Your task to perform on an android device: turn on airplane mode Image 0: 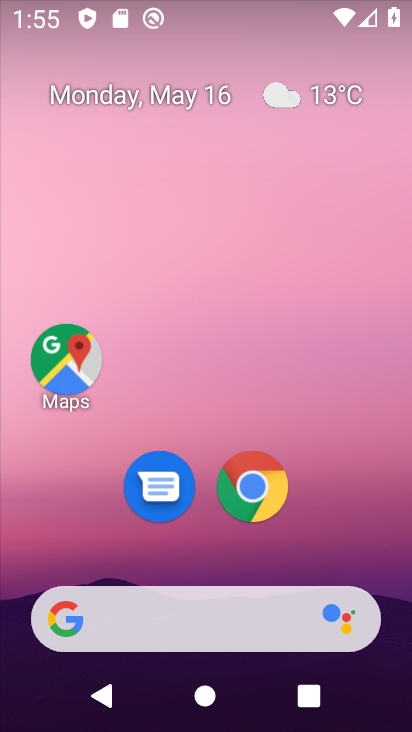
Step 0: drag from (376, 519) to (352, 116)
Your task to perform on an android device: turn on airplane mode Image 1: 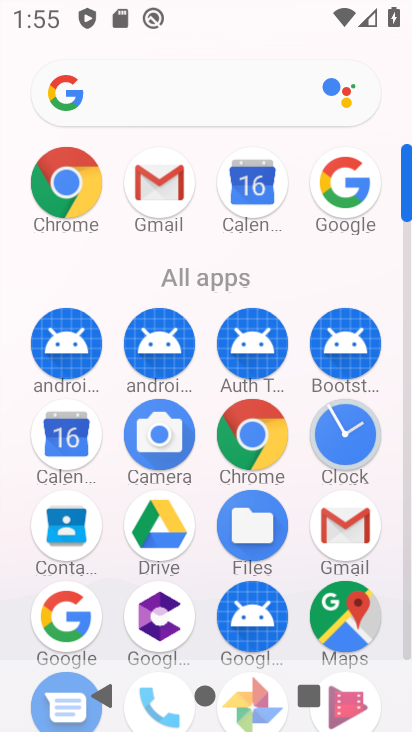
Step 1: drag from (382, 652) to (374, 223)
Your task to perform on an android device: turn on airplane mode Image 2: 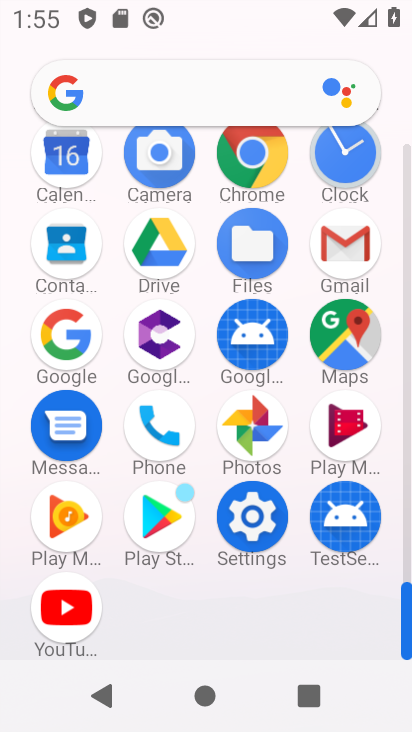
Step 2: click (249, 521)
Your task to perform on an android device: turn on airplane mode Image 3: 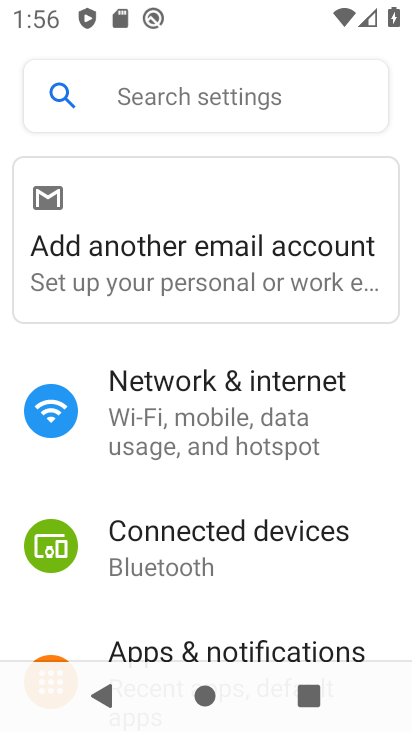
Step 3: click (197, 425)
Your task to perform on an android device: turn on airplane mode Image 4: 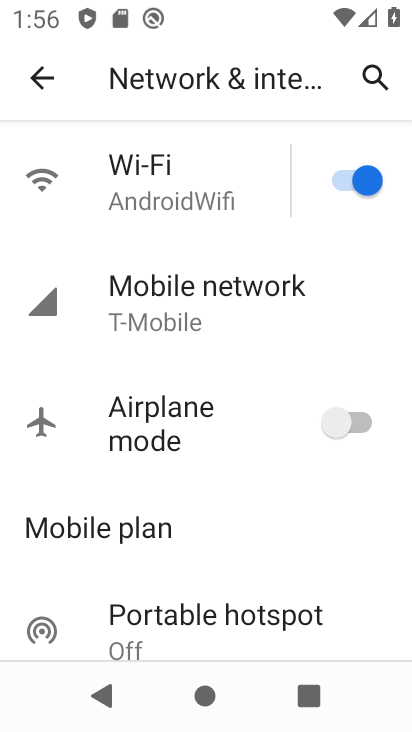
Step 4: click (313, 409)
Your task to perform on an android device: turn on airplane mode Image 5: 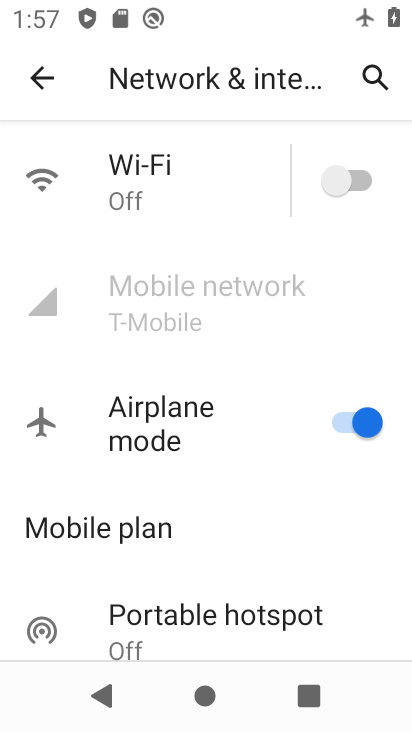
Step 5: task complete